Your task to perform on an android device: Go to ESPN.com Image 0: 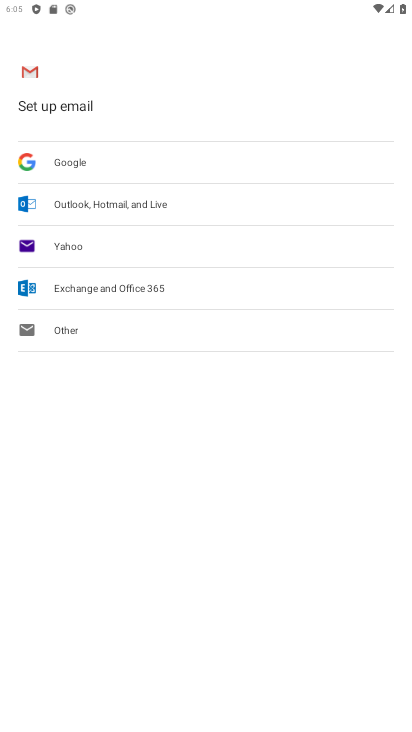
Step 0: press home button
Your task to perform on an android device: Go to ESPN.com Image 1: 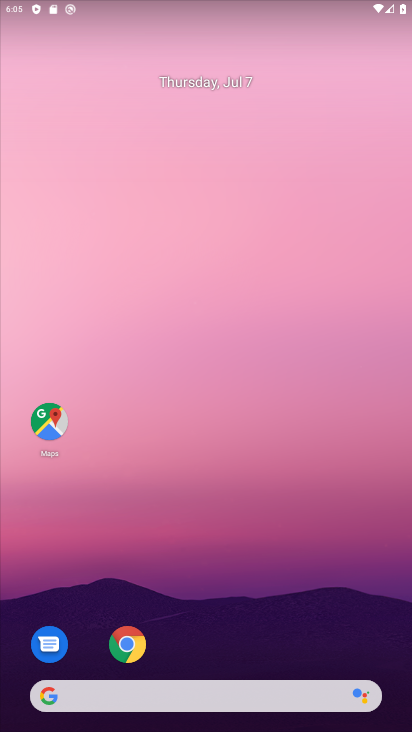
Step 1: drag from (308, 513) to (310, 260)
Your task to perform on an android device: Go to ESPN.com Image 2: 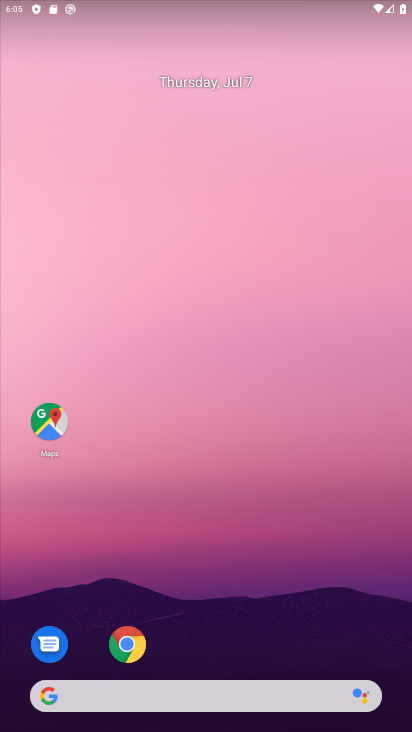
Step 2: click (120, 668)
Your task to perform on an android device: Go to ESPN.com Image 3: 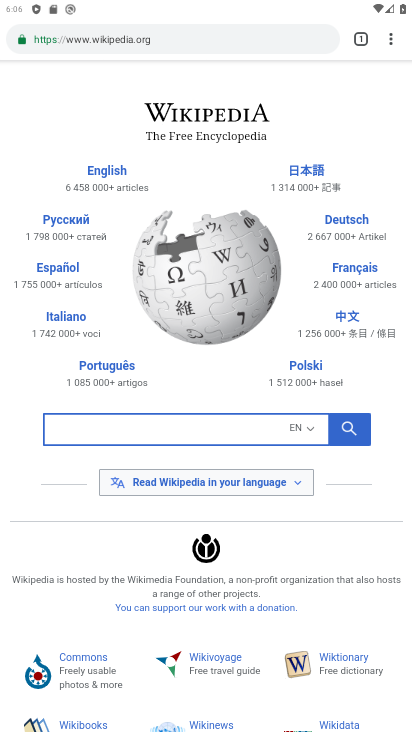
Step 3: click (174, 38)
Your task to perform on an android device: Go to ESPN.com Image 4: 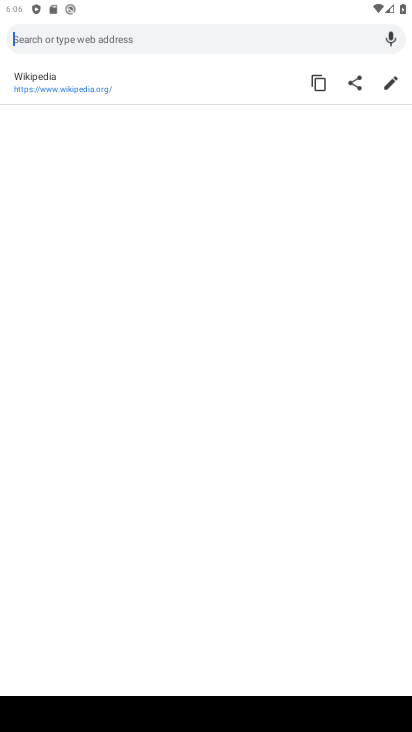
Step 4: click (240, 42)
Your task to perform on an android device: Go to ESPN.com Image 5: 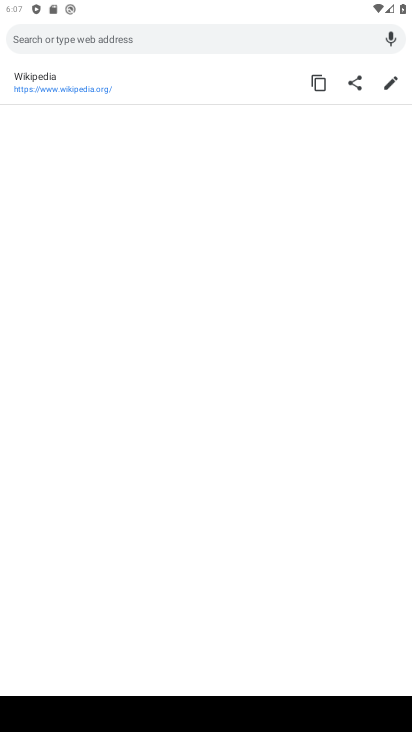
Step 5: type "ESPN.com"
Your task to perform on an android device: Go to ESPN.com Image 6: 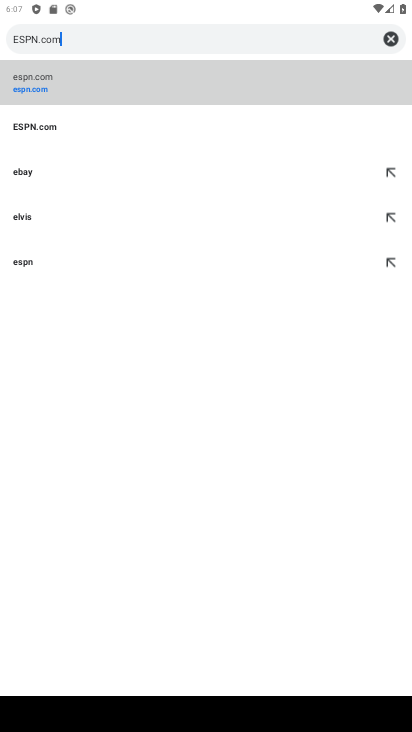
Step 6: type ""
Your task to perform on an android device: Go to ESPN.com Image 7: 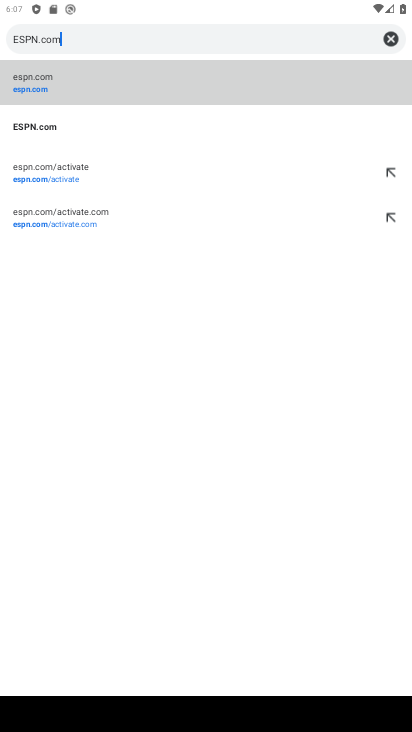
Step 7: click (116, 65)
Your task to perform on an android device: Go to ESPN.com Image 8: 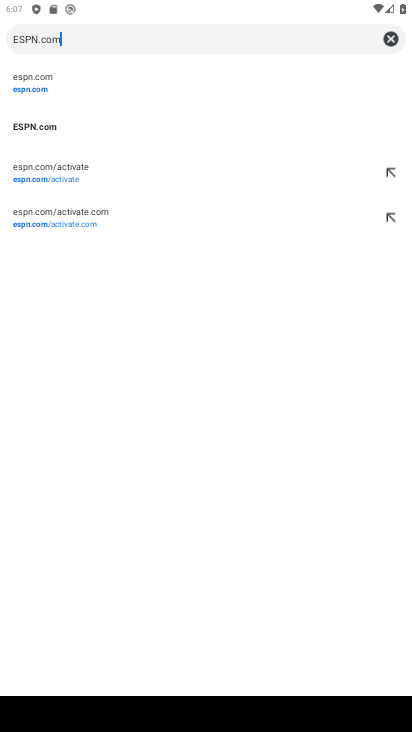
Step 8: click (101, 85)
Your task to perform on an android device: Go to ESPN.com Image 9: 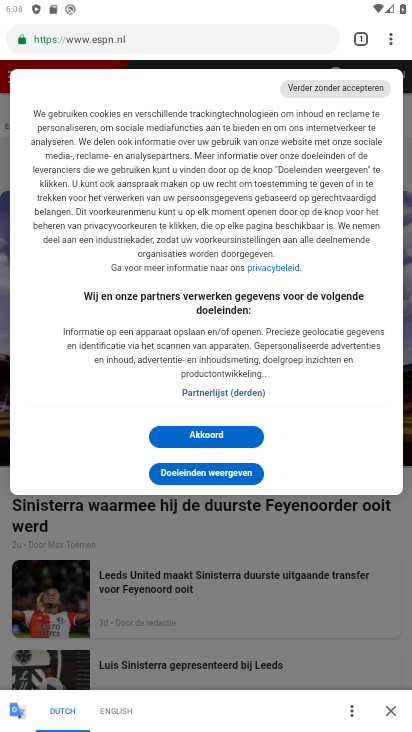
Step 9: task complete